Your task to perform on an android device: Show me popular videos on Youtube Image 0: 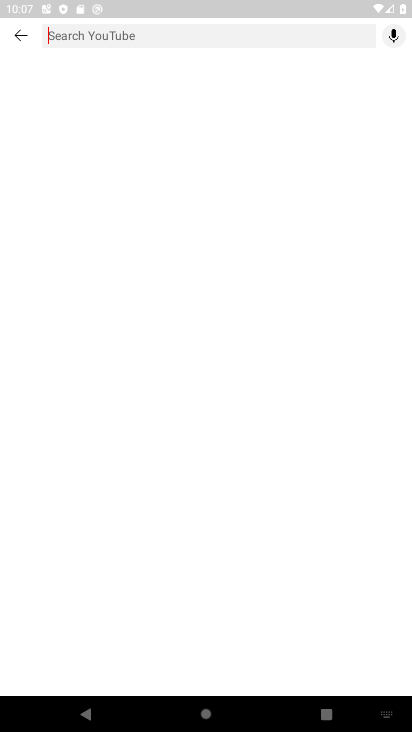
Step 0: press home button
Your task to perform on an android device: Show me popular videos on Youtube Image 1: 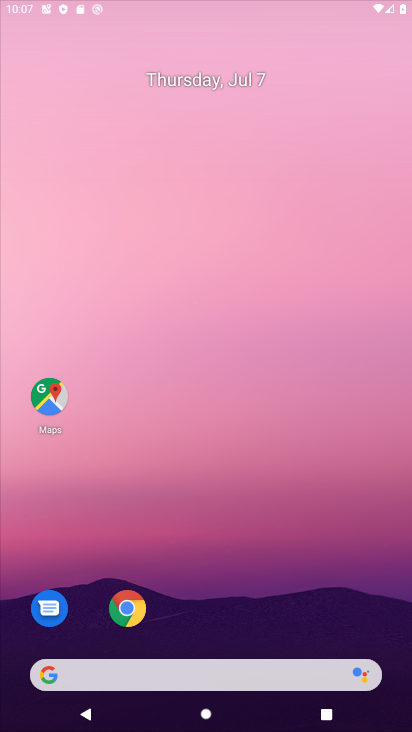
Step 1: drag from (287, 621) to (306, 92)
Your task to perform on an android device: Show me popular videos on Youtube Image 2: 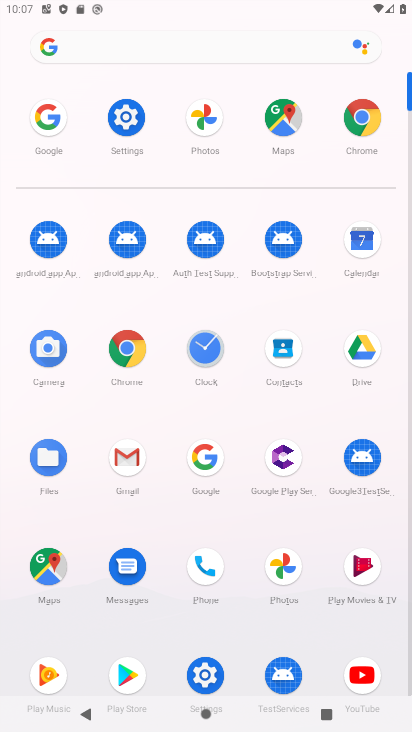
Step 2: click (366, 680)
Your task to perform on an android device: Show me popular videos on Youtube Image 3: 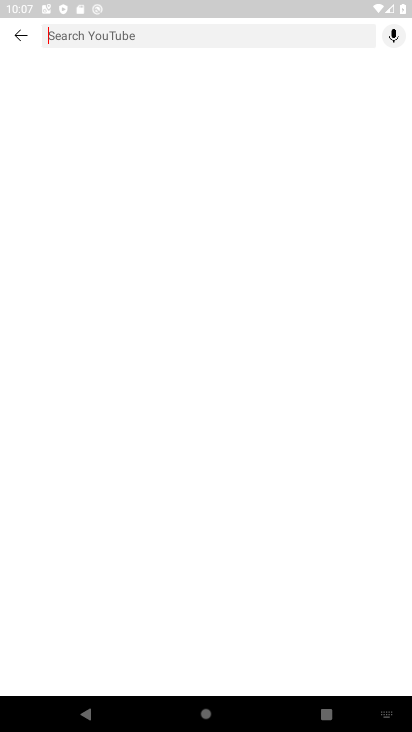
Step 3: task complete